Your task to perform on an android device: Go to Wikipedia Image 0: 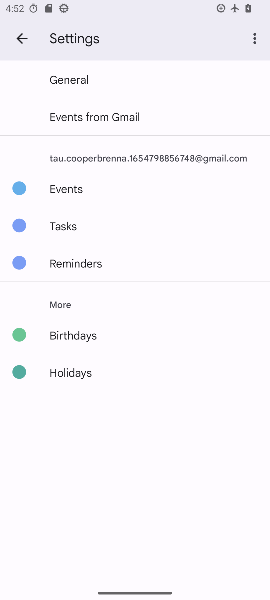
Step 0: click (17, 39)
Your task to perform on an android device: Go to Wikipedia Image 1: 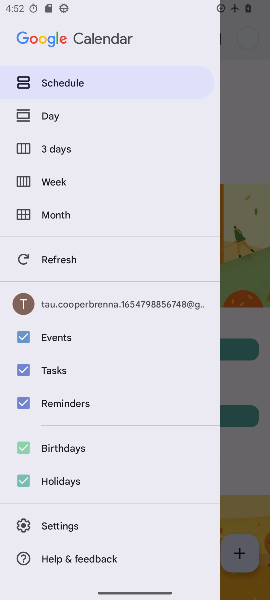
Step 1: drag from (155, 463) to (89, 214)
Your task to perform on an android device: Go to Wikipedia Image 2: 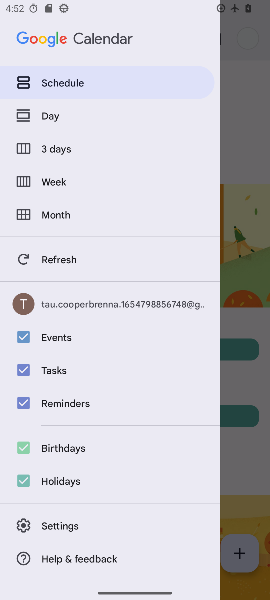
Step 2: click (255, 194)
Your task to perform on an android device: Go to Wikipedia Image 3: 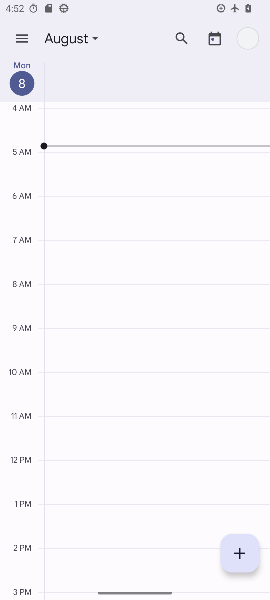
Step 3: press home button
Your task to perform on an android device: Go to Wikipedia Image 4: 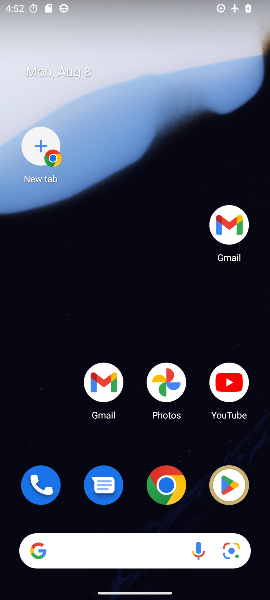
Step 4: press back button
Your task to perform on an android device: Go to Wikipedia Image 5: 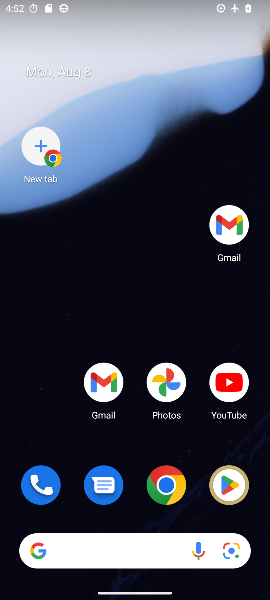
Step 5: drag from (114, 583) to (112, 146)
Your task to perform on an android device: Go to Wikipedia Image 6: 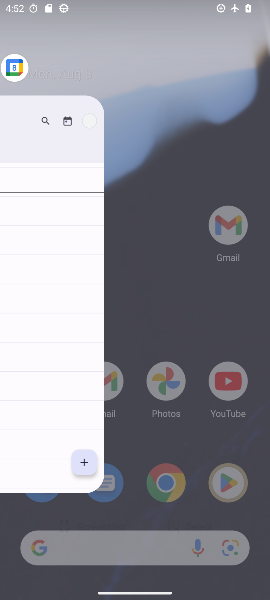
Step 6: drag from (188, 469) to (152, 248)
Your task to perform on an android device: Go to Wikipedia Image 7: 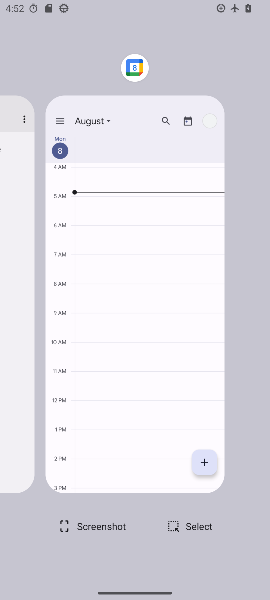
Step 7: press back button
Your task to perform on an android device: Go to Wikipedia Image 8: 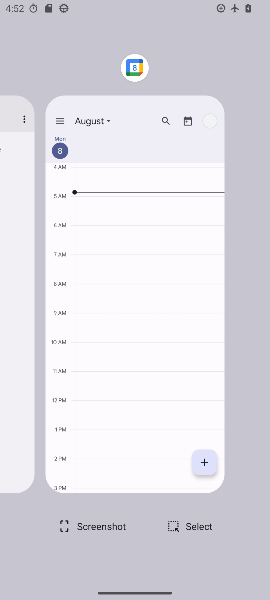
Step 8: press back button
Your task to perform on an android device: Go to Wikipedia Image 9: 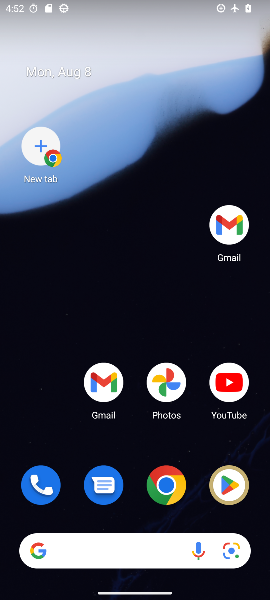
Step 9: drag from (160, 470) to (169, 233)
Your task to perform on an android device: Go to Wikipedia Image 10: 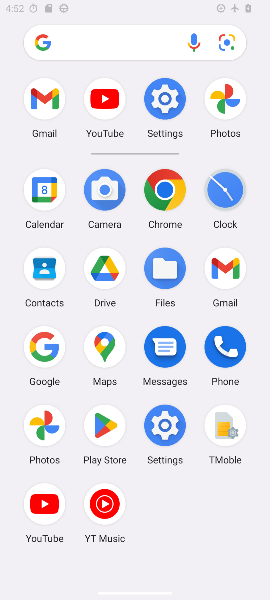
Step 10: drag from (171, 411) to (121, 249)
Your task to perform on an android device: Go to Wikipedia Image 11: 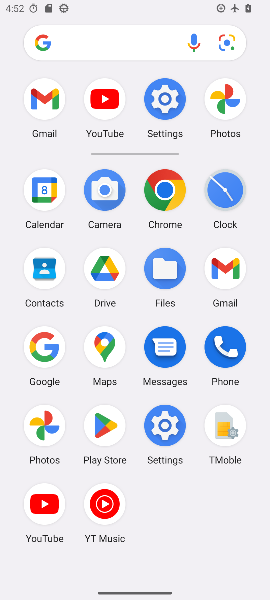
Step 11: click (160, 175)
Your task to perform on an android device: Go to Wikipedia Image 12: 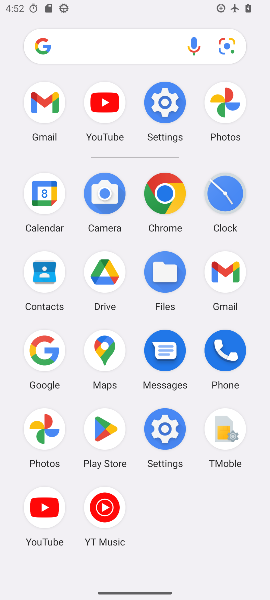
Step 12: click (162, 184)
Your task to perform on an android device: Go to Wikipedia Image 13: 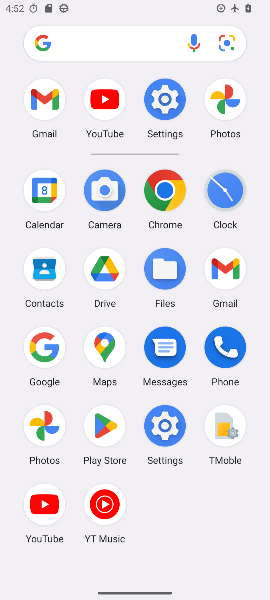
Step 13: click (162, 184)
Your task to perform on an android device: Go to Wikipedia Image 14: 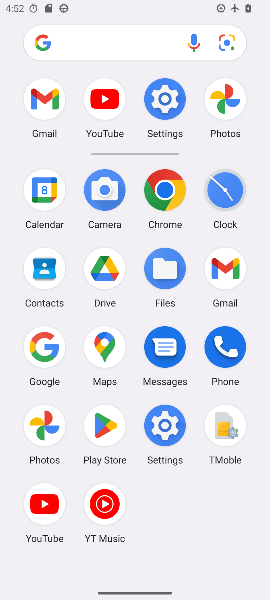
Step 14: click (162, 188)
Your task to perform on an android device: Go to Wikipedia Image 15: 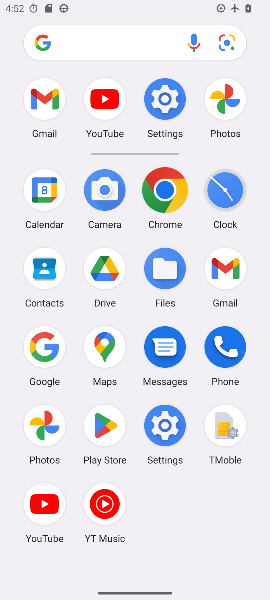
Step 15: click (162, 188)
Your task to perform on an android device: Go to Wikipedia Image 16: 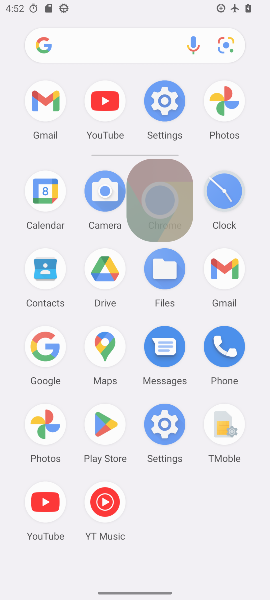
Step 16: click (162, 188)
Your task to perform on an android device: Go to Wikipedia Image 17: 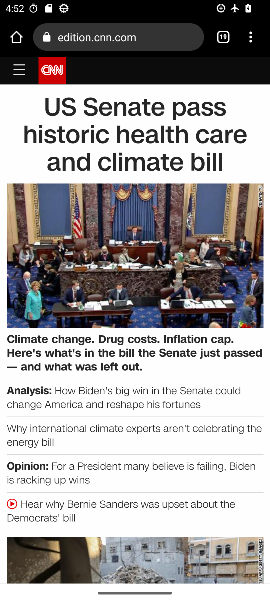
Step 17: click (162, 187)
Your task to perform on an android device: Go to Wikipedia Image 18: 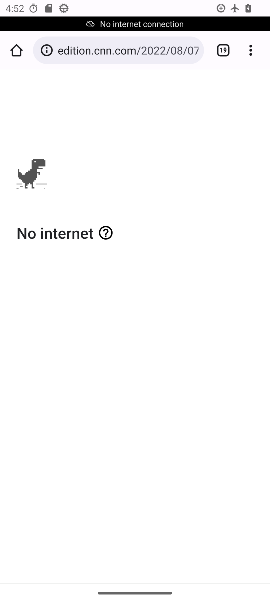
Step 18: drag from (246, 28) to (115, 335)
Your task to perform on an android device: Go to Wikipedia Image 19: 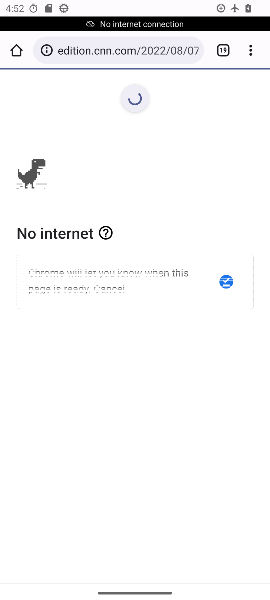
Step 19: drag from (249, 50) to (132, 124)
Your task to perform on an android device: Go to Wikipedia Image 20: 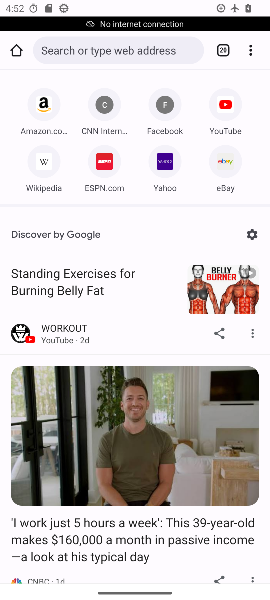
Step 20: click (35, 171)
Your task to perform on an android device: Go to Wikipedia Image 21: 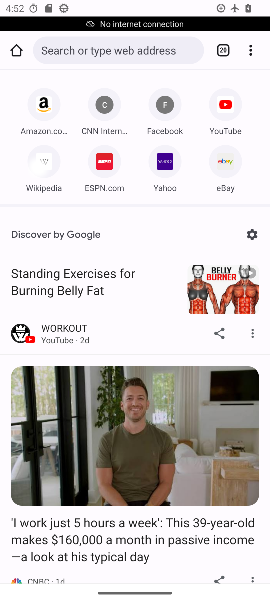
Step 21: click (42, 175)
Your task to perform on an android device: Go to Wikipedia Image 22: 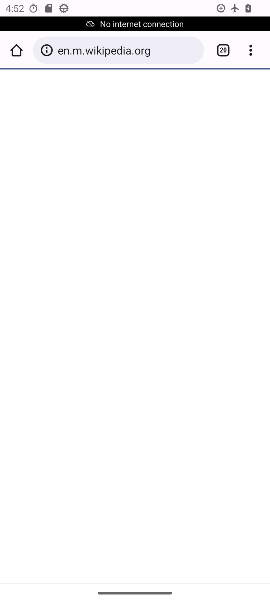
Step 22: click (42, 175)
Your task to perform on an android device: Go to Wikipedia Image 23: 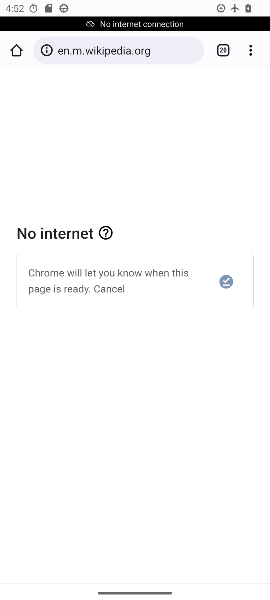
Step 23: task complete